Your task to perform on an android device: turn notification dots off Image 0: 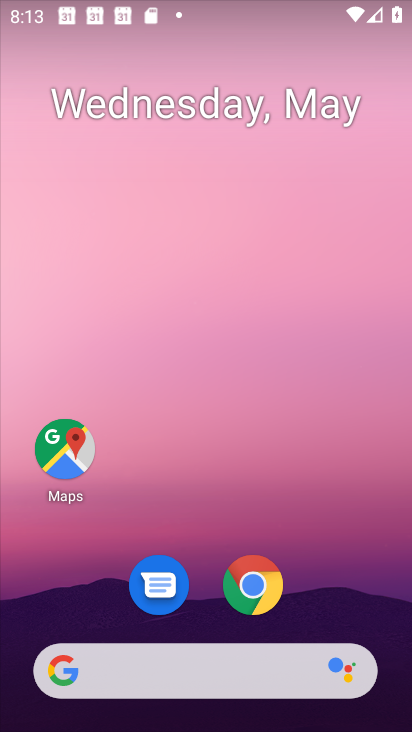
Step 0: drag from (340, 571) to (289, 35)
Your task to perform on an android device: turn notification dots off Image 1: 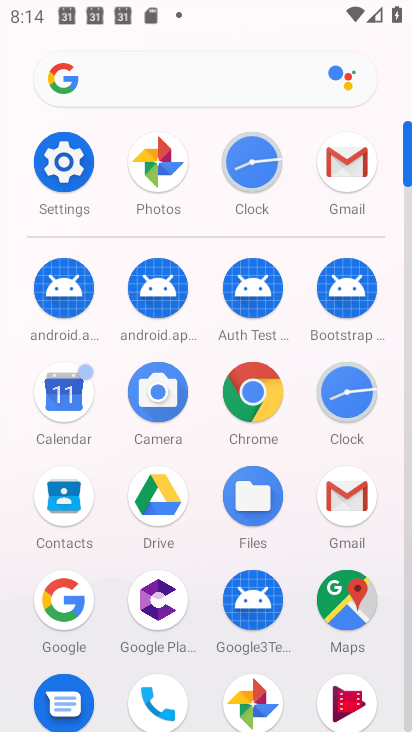
Step 1: click (58, 147)
Your task to perform on an android device: turn notification dots off Image 2: 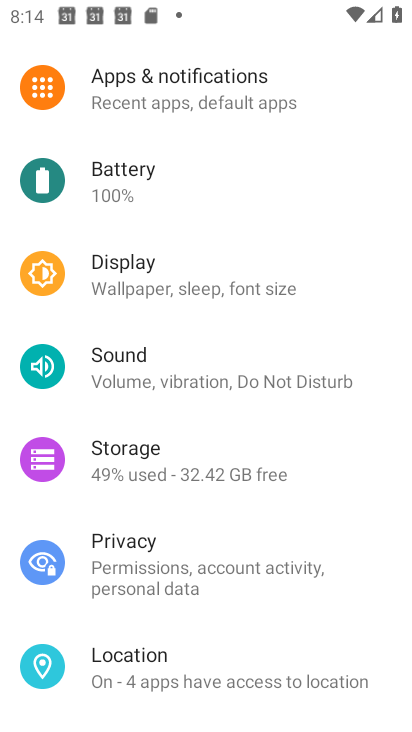
Step 2: click (233, 90)
Your task to perform on an android device: turn notification dots off Image 3: 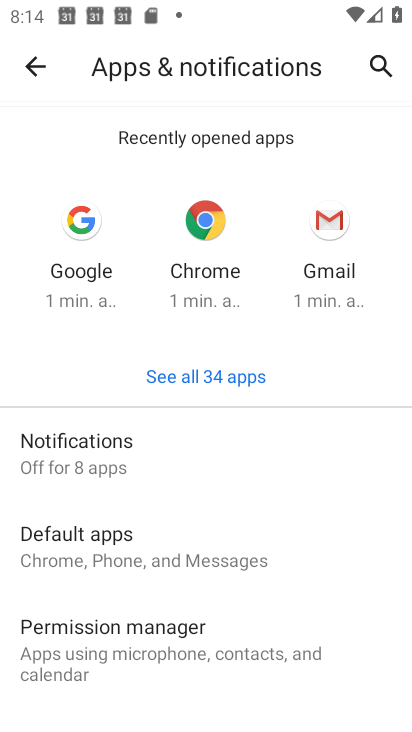
Step 3: click (164, 455)
Your task to perform on an android device: turn notification dots off Image 4: 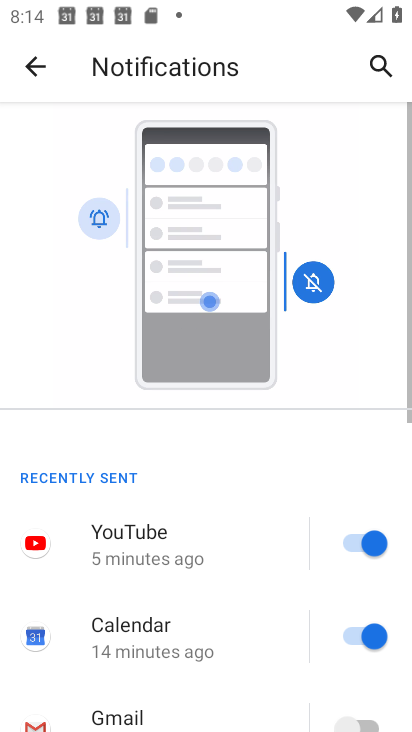
Step 4: drag from (221, 567) to (144, 170)
Your task to perform on an android device: turn notification dots off Image 5: 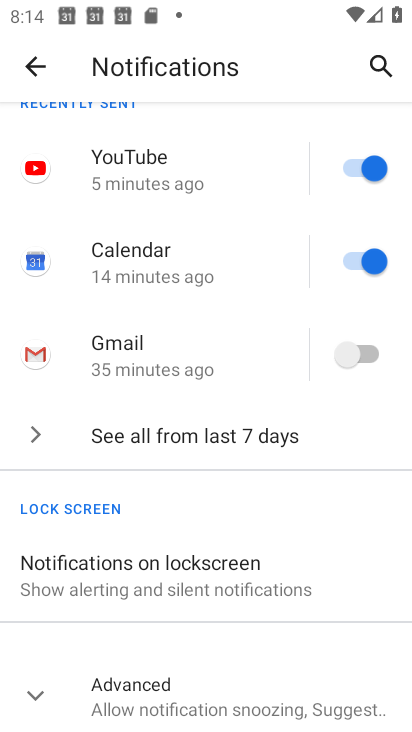
Step 5: click (37, 694)
Your task to perform on an android device: turn notification dots off Image 6: 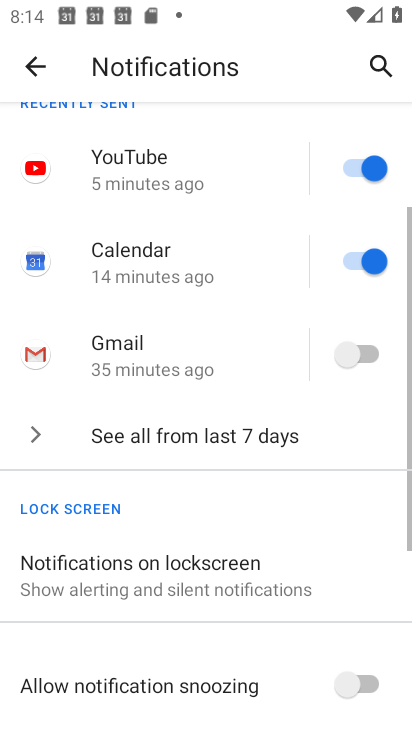
Step 6: drag from (237, 602) to (185, 221)
Your task to perform on an android device: turn notification dots off Image 7: 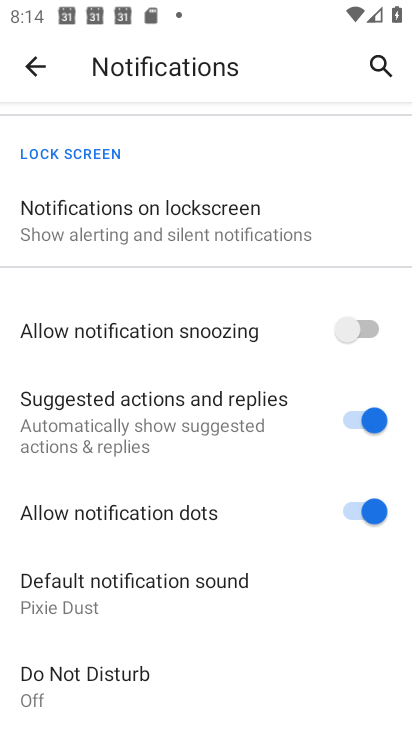
Step 7: click (368, 507)
Your task to perform on an android device: turn notification dots off Image 8: 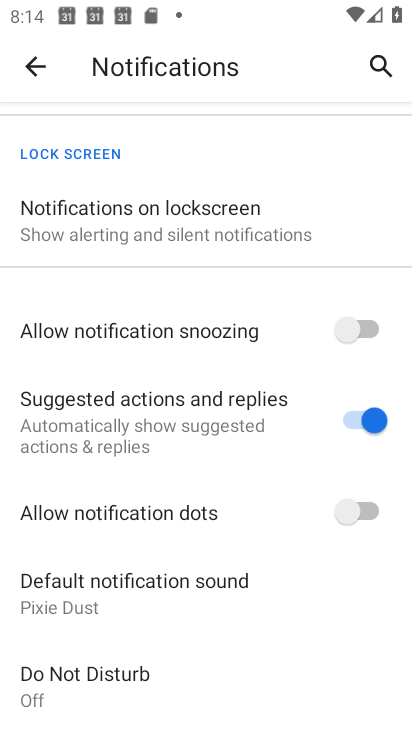
Step 8: task complete